Your task to perform on an android device: Open the stopwatch Image 0: 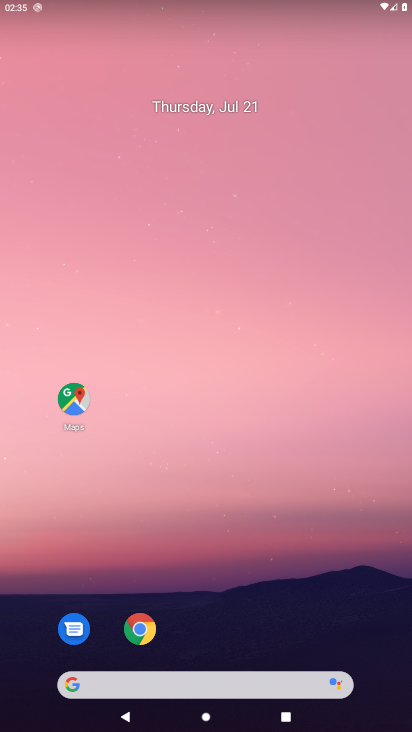
Step 0: drag from (59, 670) to (351, 0)
Your task to perform on an android device: Open the stopwatch Image 1: 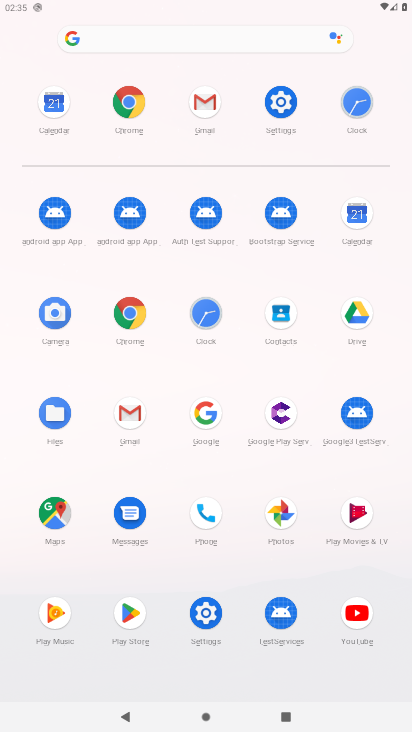
Step 1: click (197, 614)
Your task to perform on an android device: Open the stopwatch Image 2: 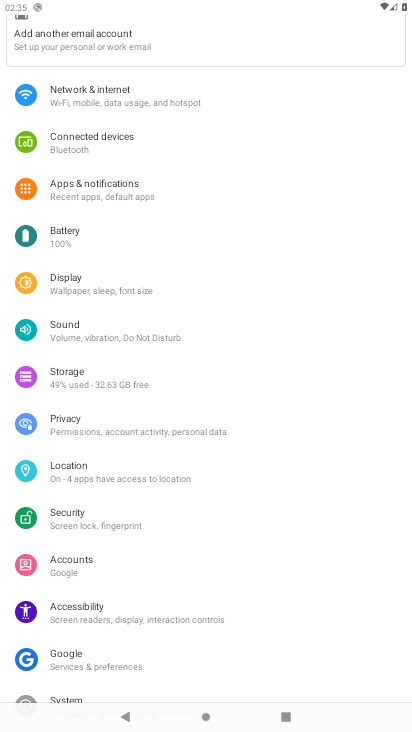
Step 2: press home button
Your task to perform on an android device: Open the stopwatch Image 3: 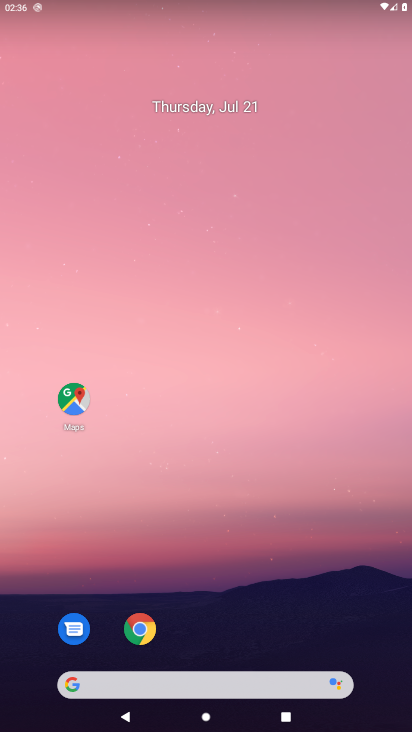
Step 3: drag from (33, 697) to (168, 339)
Your task to perform on an android device: Open the stopwatch Image 4: 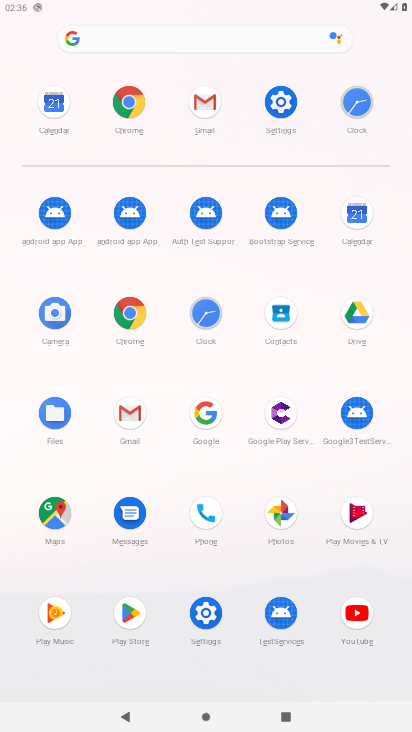
Step 4: click (207, 325)
Your task to perform on an android device: Open the stopwatch Image 5: 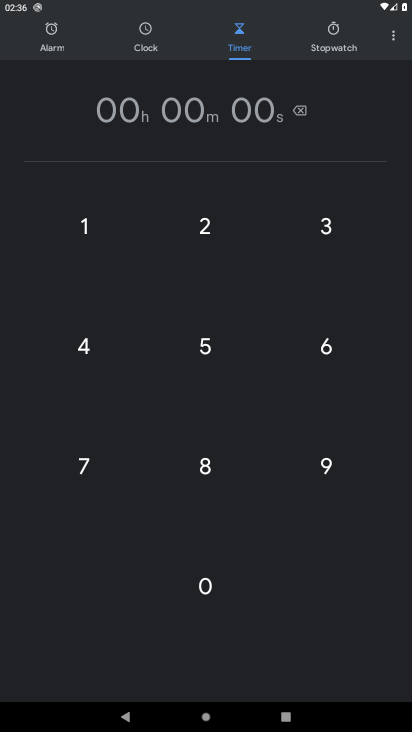
Step 5: click (345, 65)
Your task to perform on an android device: Open the stopwatch Image 6: 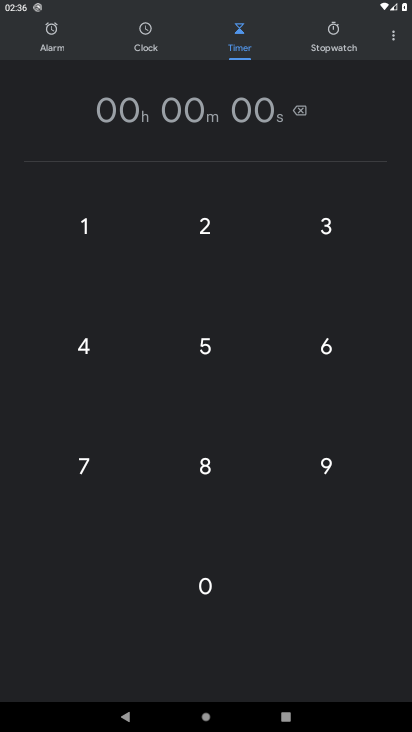
Step 6: click (341, 42)
Your task to perform on an android device: Open the stopwatch Image 7: 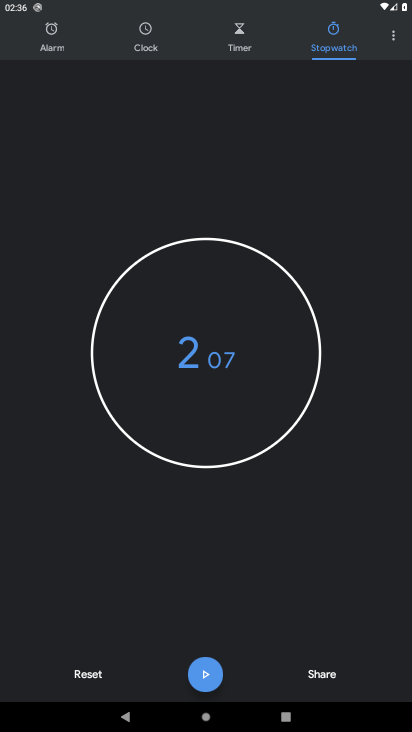
Step 7: task complete